Your task to perform on an android device: check android version Image 0: 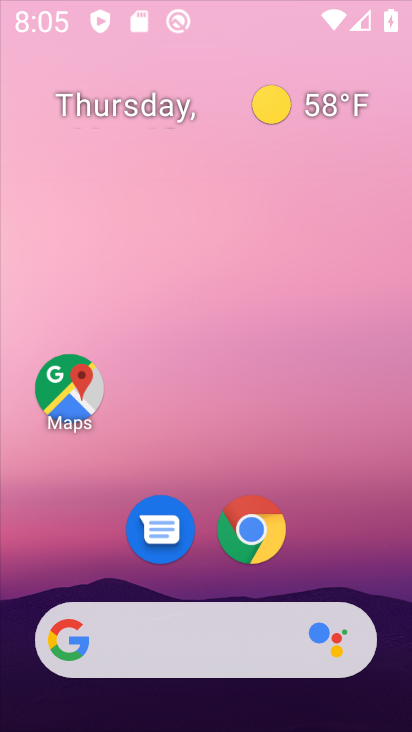
Step 0: click (214, 176)
Your task to perform on an android device: check android version Image 1: 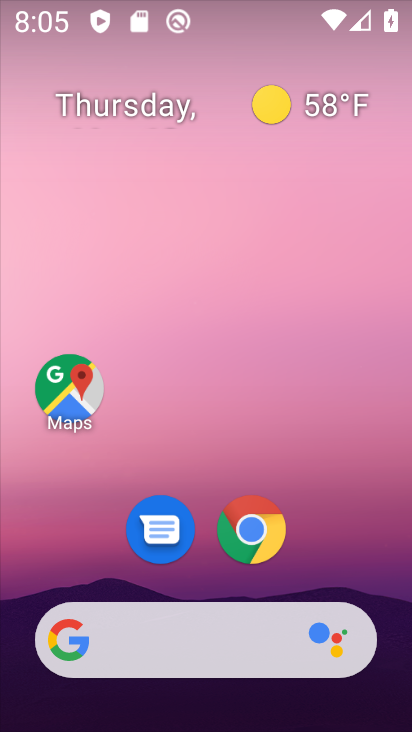
Step 1: drag from (199, 569) to (230, 142)
Your task to perform on an android device: check android version Image 2: 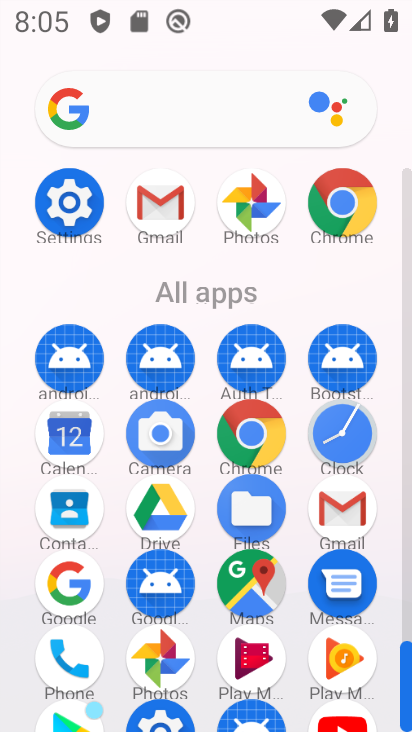
Step 2: click (76, 197)
Your task to perform on an android device: check android version Image 3: 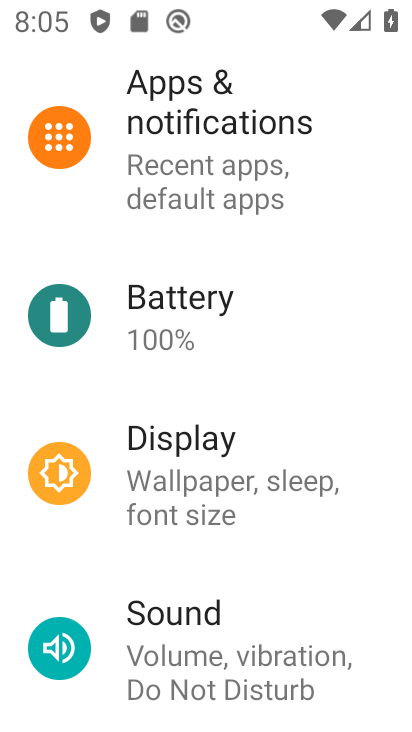
Step 3: drag from (274, 651) to (239, 215)
Your task to perform on an android device: check android version Image 4: 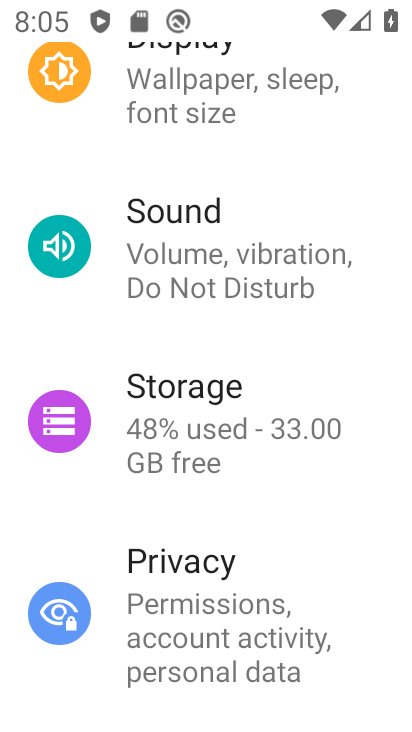
Step 4: drag from (237, 611) to (258, 96)
Your task to perform on an android device: check android version Image 5: 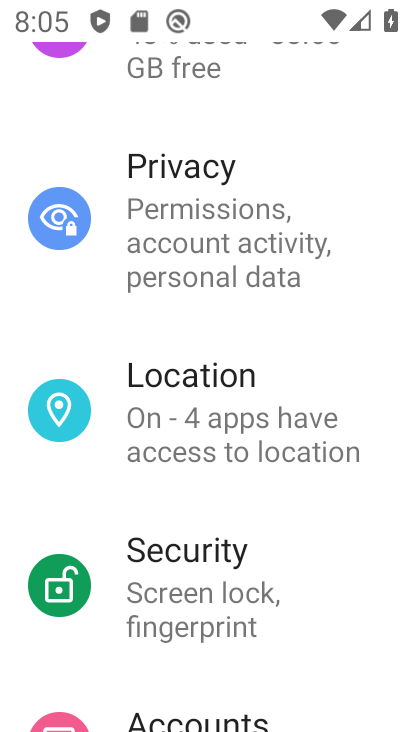
Step 5: drag from (209, 634) to (237, 33)
Your task to perform on an android device: check android version Image 6: 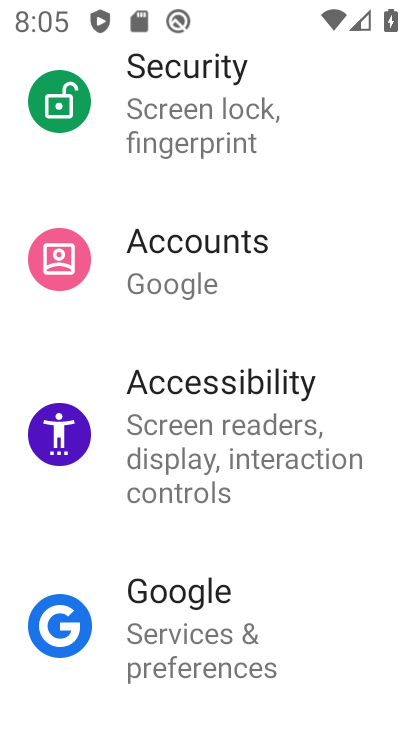
Step 6: drag from (216, 706) to (220, 278)
Your task to perform on an android device: check android version Image 7: 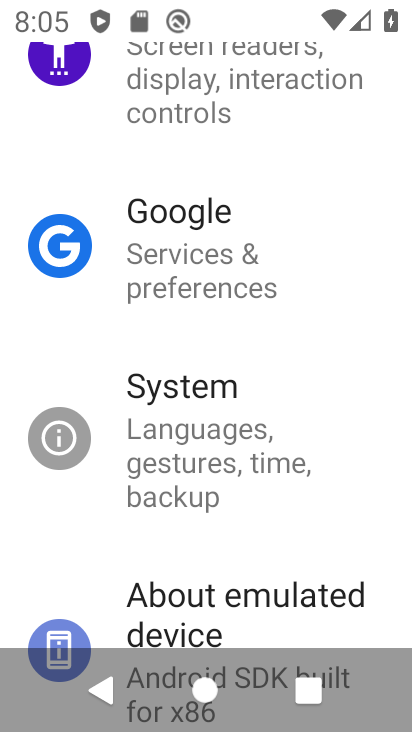
Step 7: drag from (220, 564) to (231, 200)
Your task to perform on an android device: check android version Image 8: 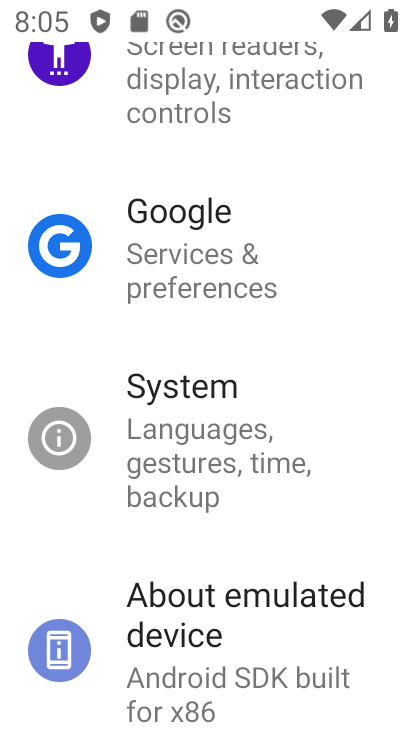
Step 8: click (185, 632)
Your task to perform on an android device: check android version Image 9: 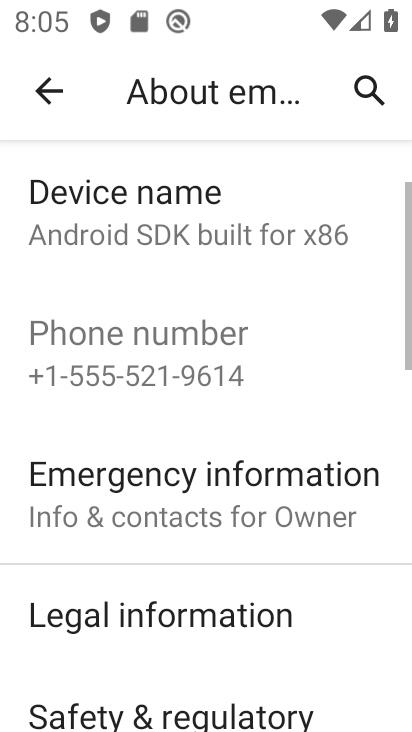
Step 9: drag from (223, 639) to (253, 3)
Your task to perform on an android device: check android version Image 10: 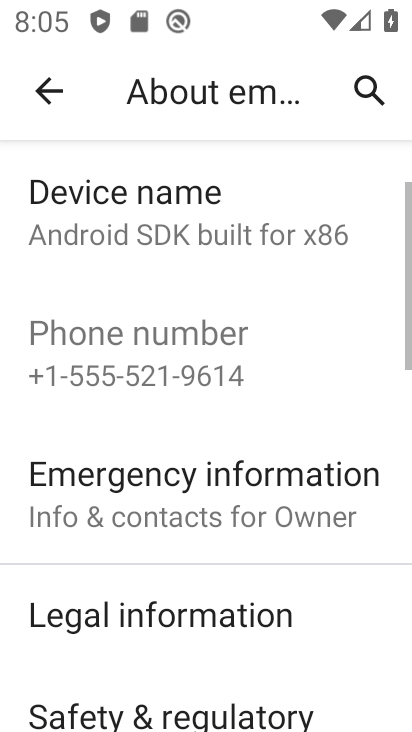
Step 10: drag from (202, 532) to (208, 212)
Your task to perform on an android device: check android version Image 11: 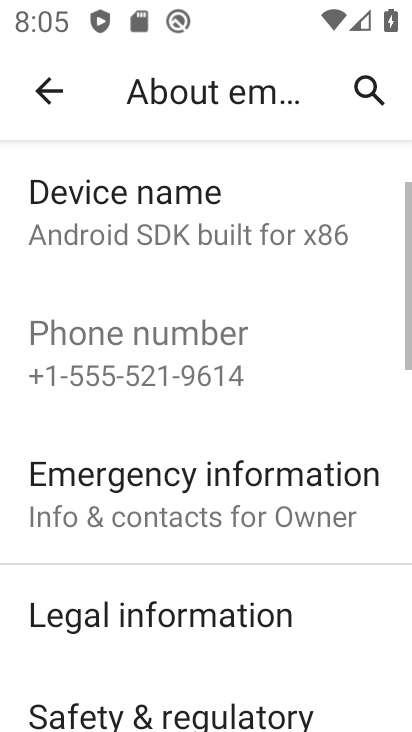
Step 11: drag from (194, 656) to (168, 253)
Your task to perform on an android device: check android version Image 12: 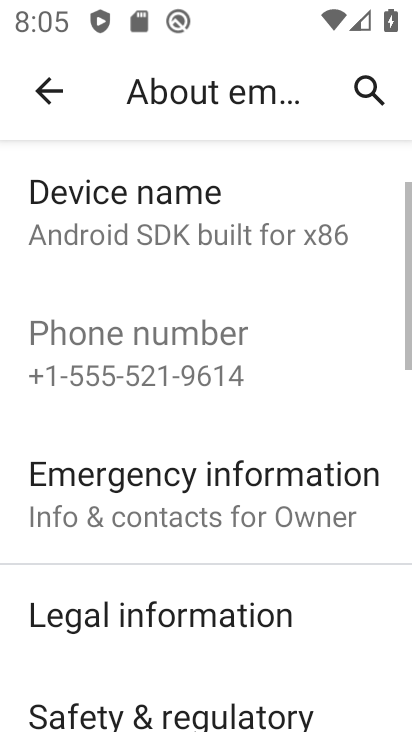
Step 12: drag from (227, 584) to (245, 129)
Your task to perform on an android device: check android version Image 13: 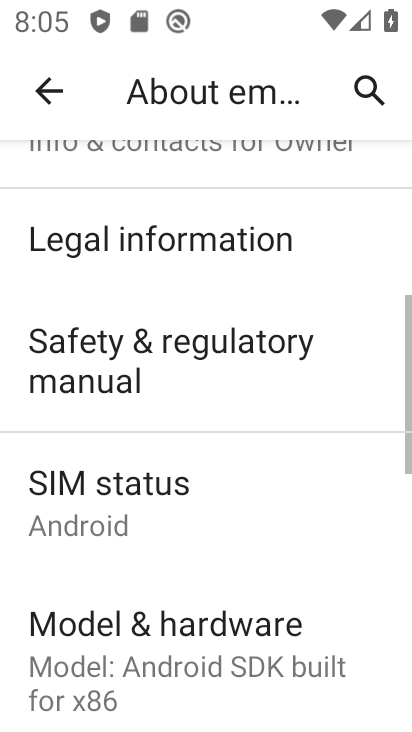
Step 13: drag from (235, 603) to (195, 113)
Your task to perform on an android device: check android version Image 14: 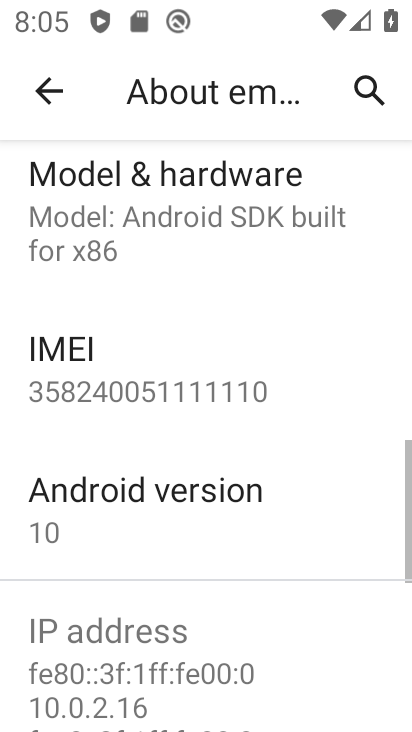
Step 14: click (69, 498)
Your task to perform on an android device: check android version Image 15: 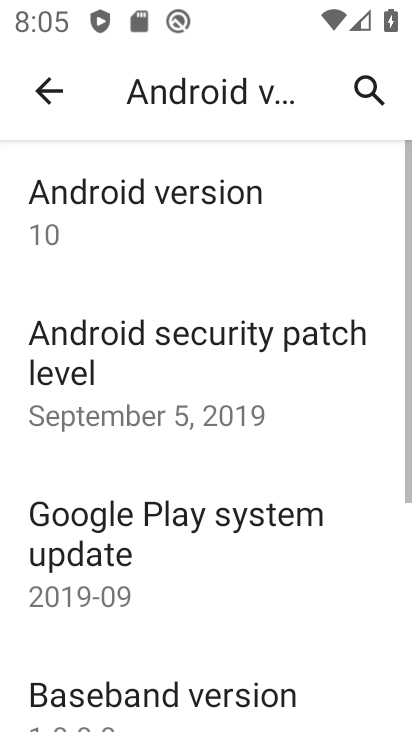
Step 15: click (147, 212)
Your task to perform on an android device: check android version Image 16: 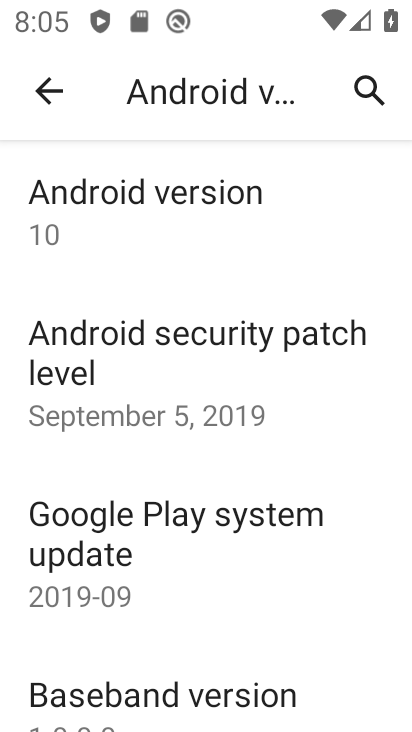
Step 16: task complete